Your task to perform on an android device: turn on showing notifications on the lock screen Image 0: 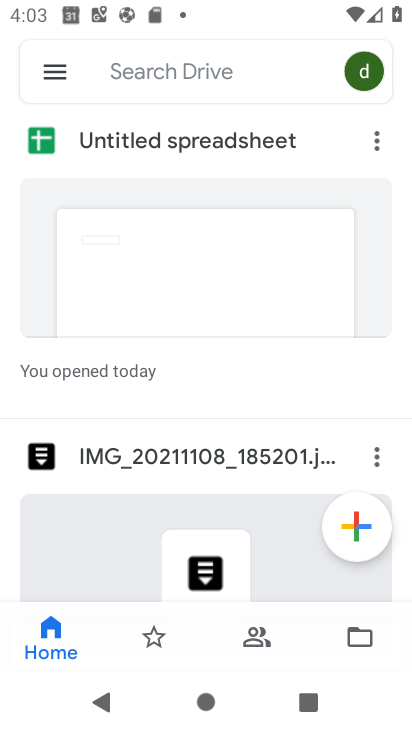
Step 0: press home button
Your task to perform on an android device: turn on showing notifications on the lock screen Image 1: 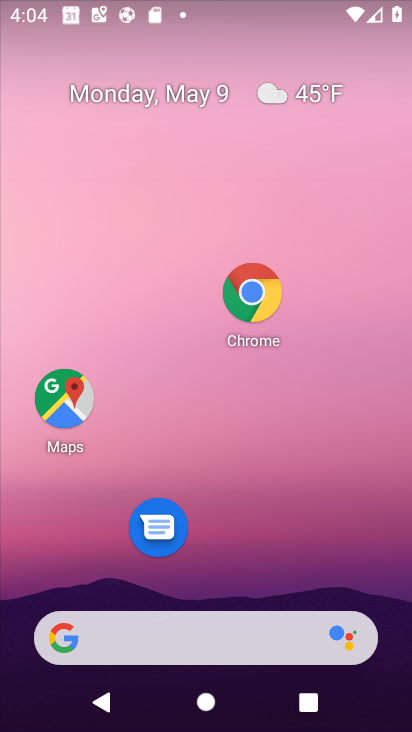
Step 1: drag from (195, 525) to (246, 119)
Your task to perform on an android device: turn on showing notifications on the lock screen Image 2: 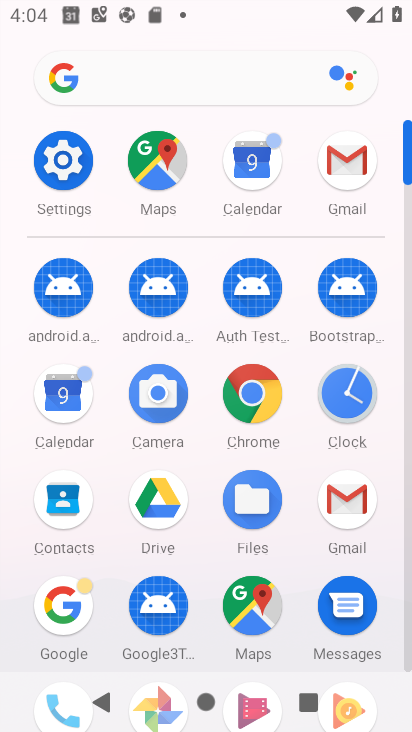
Step 2: click (66, 184)
Your task to perform on an android device: turn on showing notifications on the lock screen Image 3: 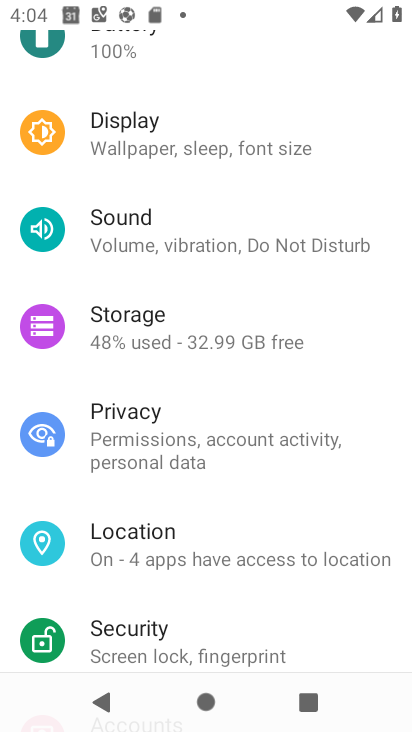
Step 3: drag from (173, 271) to (141, 441)
Your task to perform on an android device: turn on showing notifications on the lock screen Image 4: 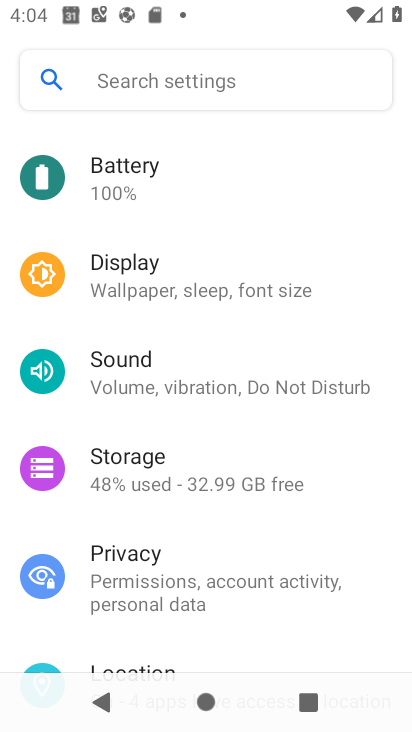
Step 4: drag from (148, 189) to (104, 481)
Your task to perform on an android device: turn on showing notifications on the lock screen Image 5: 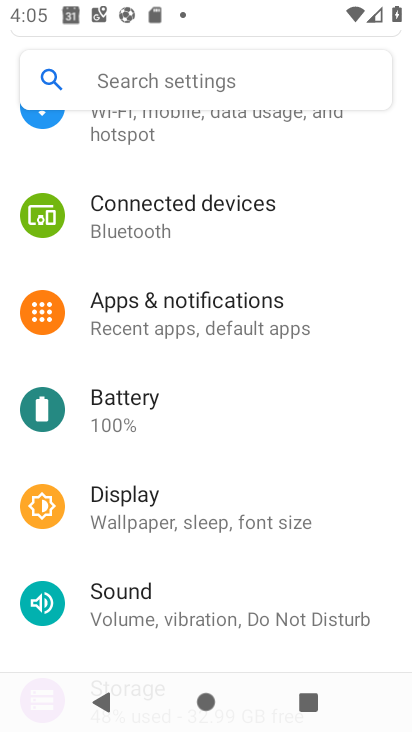
Step 5: click (187, 307)
Your task to perform on an android device: turn on showing notifications on the lock screen Image 6: 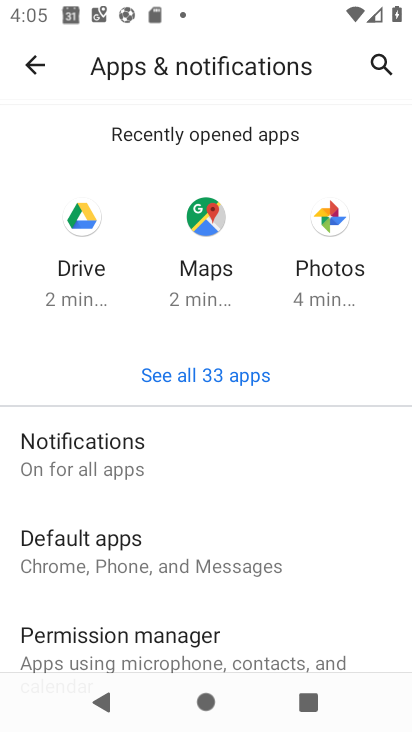
Step 6: click (138, 462)
Your task to perform on an android device: turn on showing notifications on the lock screen Image 7: 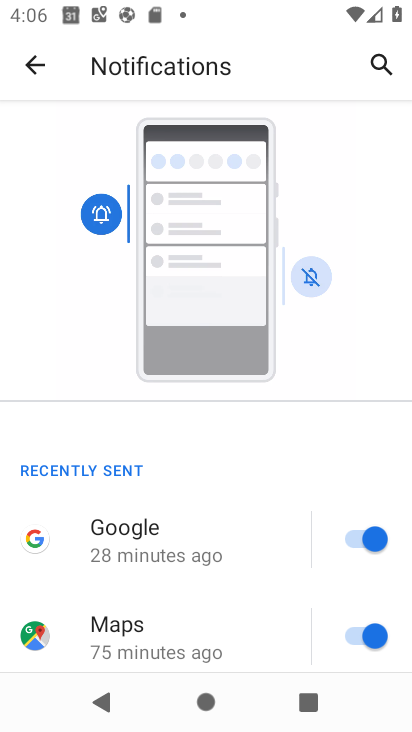
Step 7: drag from (194, 583) to (255, 188)
Your task to perform on an android device: turn on showing notifications on the lock screen Image 8: 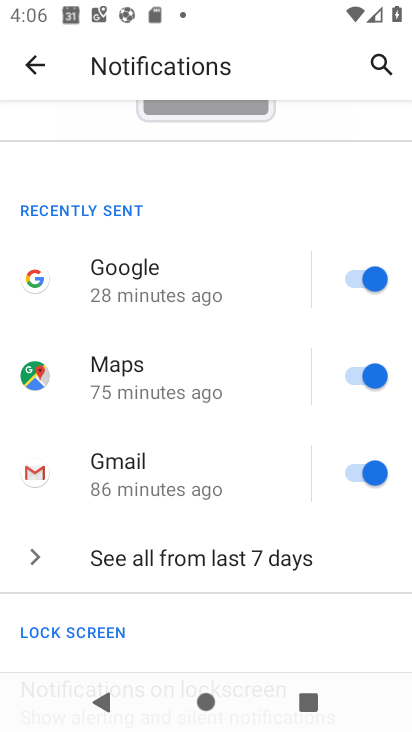
Step 8: drag from (143, 594) to (182, 334)
Your task to perform on an android device: turn on showing notifications on the lock screen Image 9: 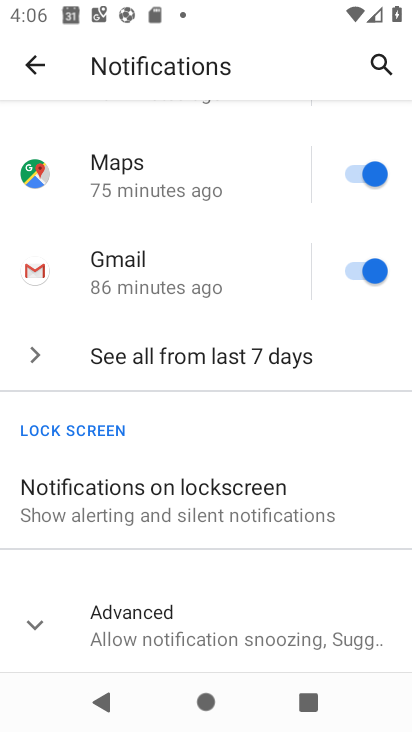
Step 9: click (207, 525)
Your task to perform on an android device: turn on showing notifications on the lock screen Image 10: 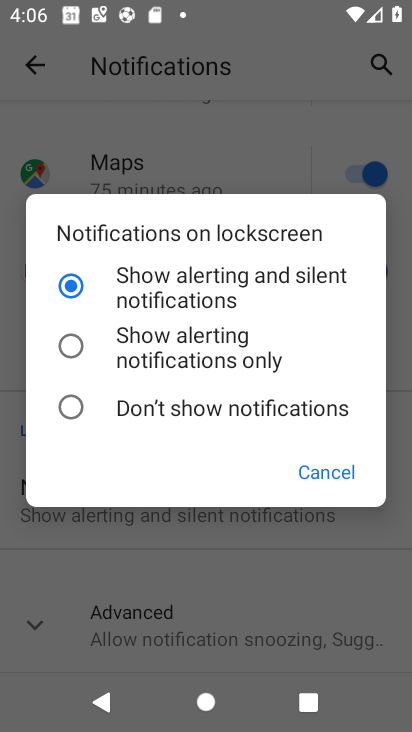
Step 10: task complete